Your task to perform on an android device: change the clock style Image 0: 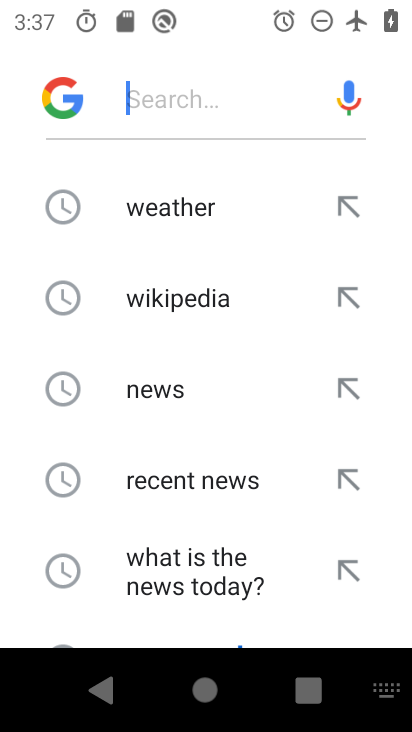
Step 0: press home button
Your task to perform on an android device: change the clock style Image 1: 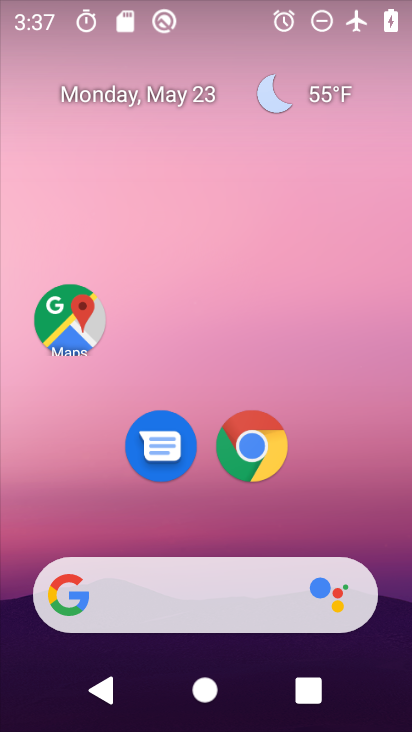
Step 1: drag from (222, 537) to (224, 197)
Your task to perform on an android device: change the clock style Image 2: 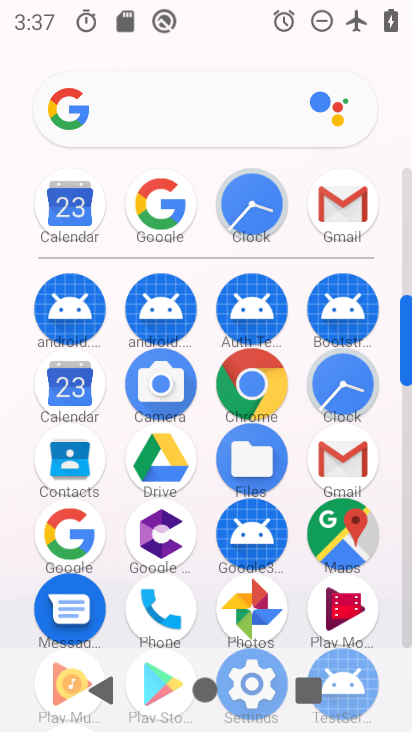
Step 2: click (230, 204)
Your task to perform on an android device: change the clock style Image 3: 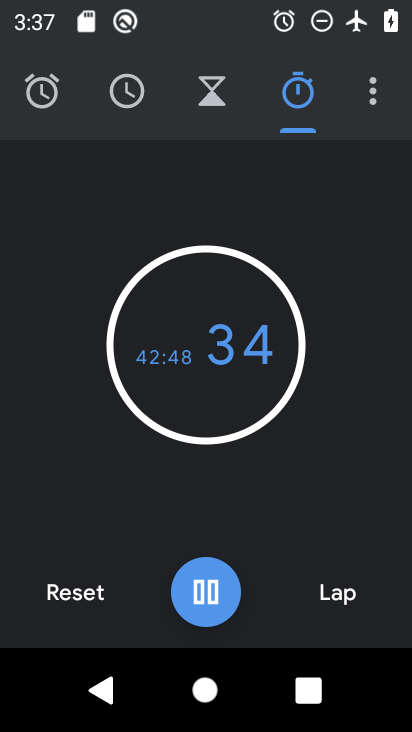
Step 3: click (370, 85)
Your task to perform on an android device: change the clock style Image 4: 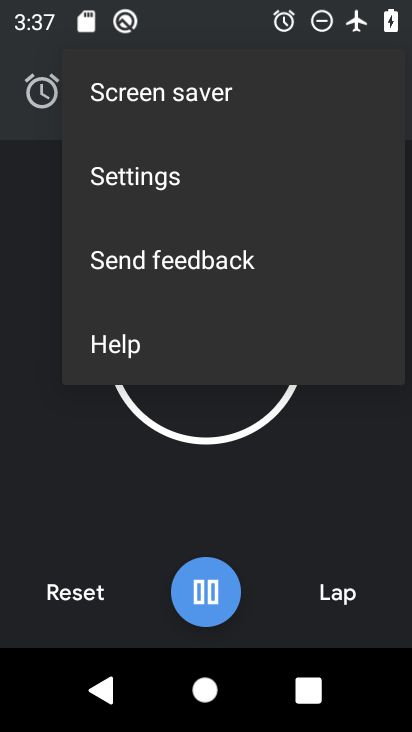
Step 4: click (145, 179)
Your task to perform on an android device: change the clock style Image 5: 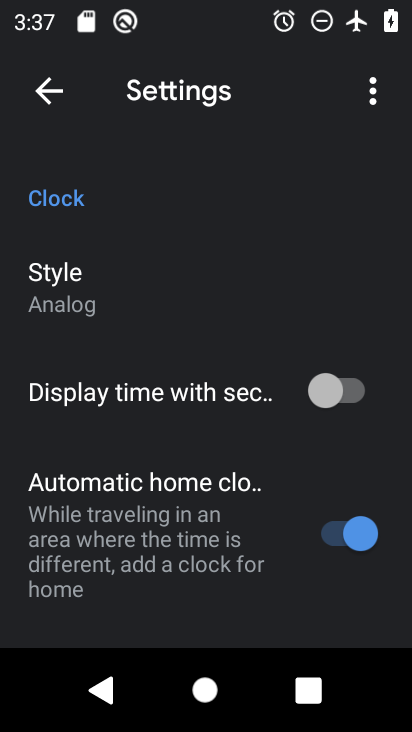
Step 5: click (95, 277)
Your task to perform on an android device: change the clock style Image 6: 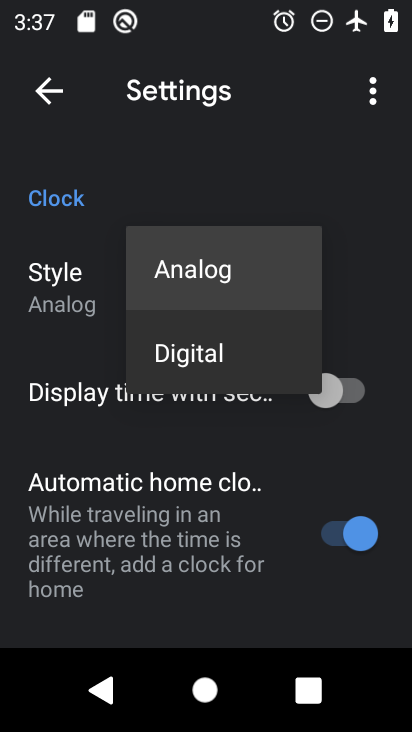
Step 6: click (191, 355)
Your task to perform on an android device: change the clock style Image 7: 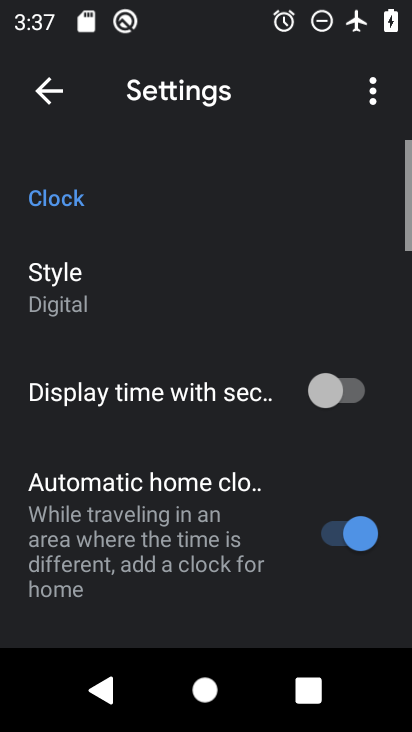
Step 7: task complete